Your task to perform on an android device: toggle improve location accuracy Image 0: 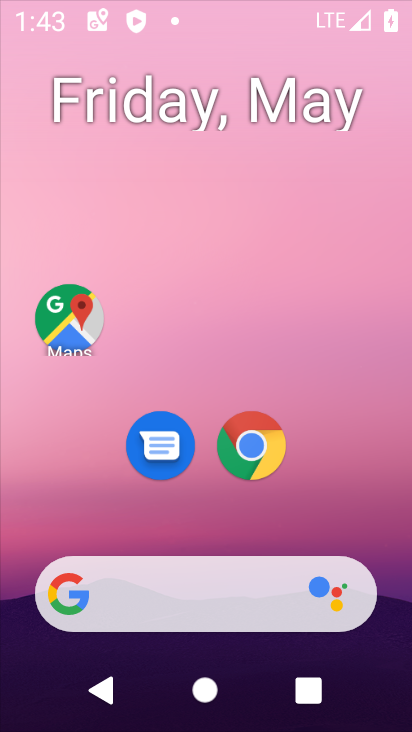
Step 0: press home button
Your task to perform on an android device: toggle improve location accuracy Image 1: 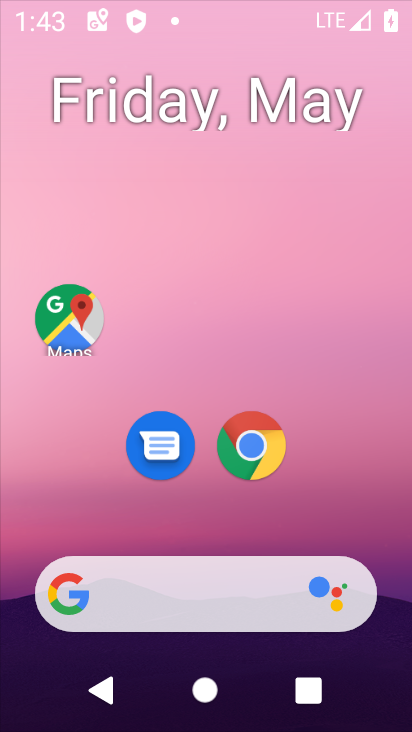
Step 1: drag from (209, 536) to (224, 90)
Your task to perform on an android device: toggle improve location accuracy Image 2: 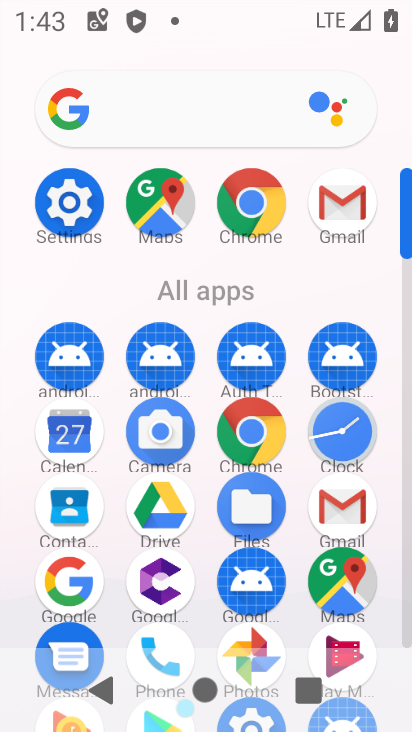
Step 2: click (67, 191)
Your task to perform on an android device: toggle improve location accuracy Image 3: 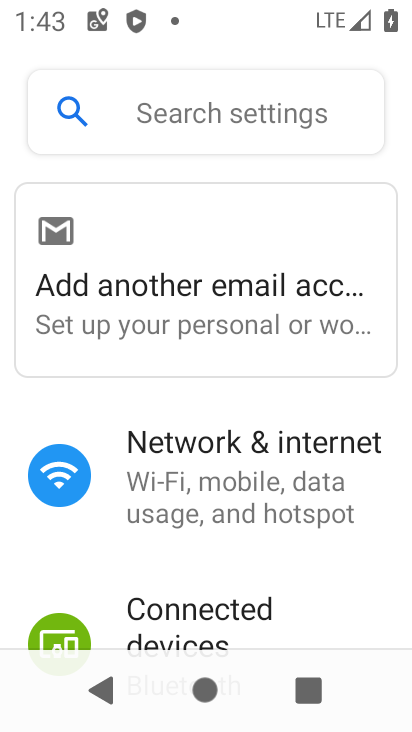
Step 3: click (187, 113)
Your task to perform on an android device: toggle improve location accuracy Image 4: 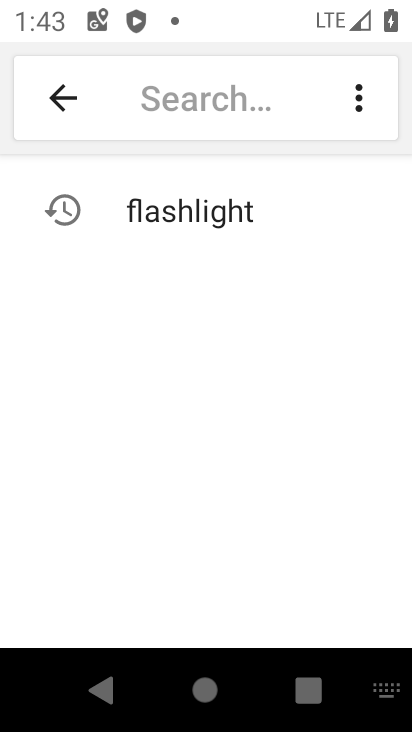
Step 4: click (272, 206)
Your task to perform on an android device: toggle improve location accuracy Image 5: 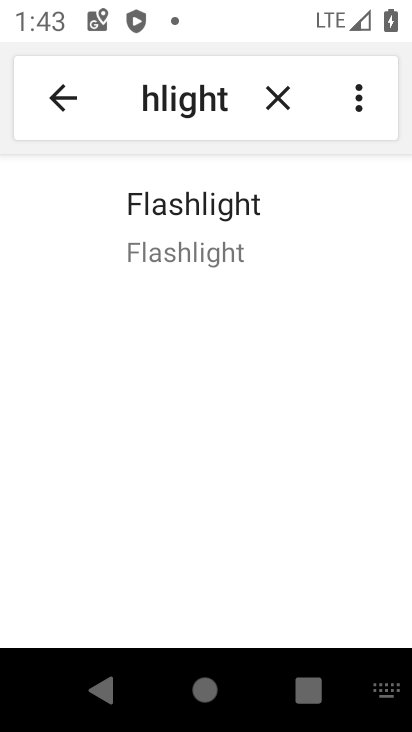
Step 5: click (200, 227)
Your task to perform on an android device: toggle improve location accuracy Image 6: 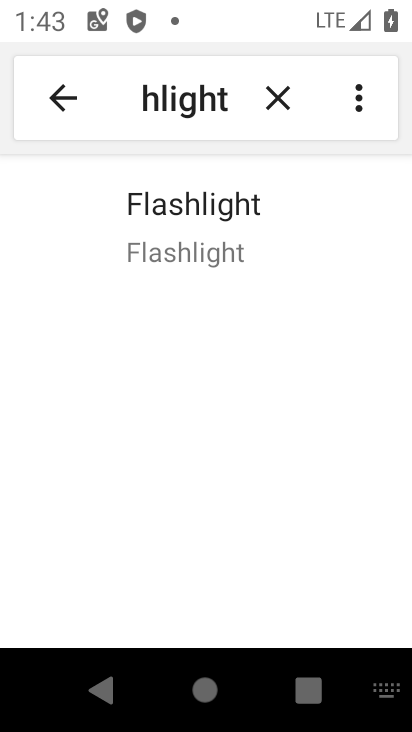
Step 6: task complete